Your task to perform on an android device: move a message to another label in the gmail app Image 0: 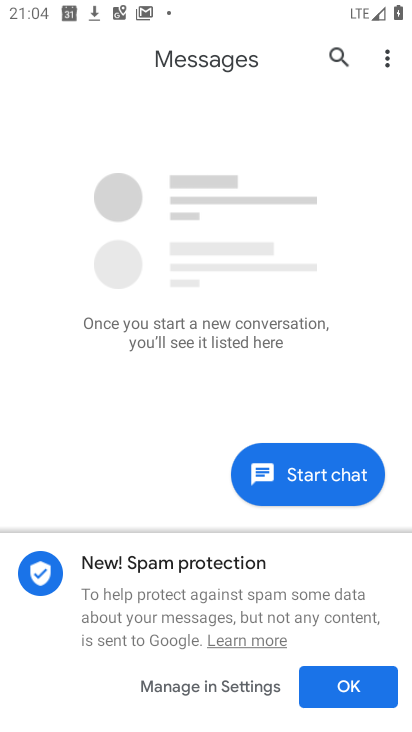
Step 0: press home button
Your task to perform on an android device: move a message to another label in the gmail app Image 1: 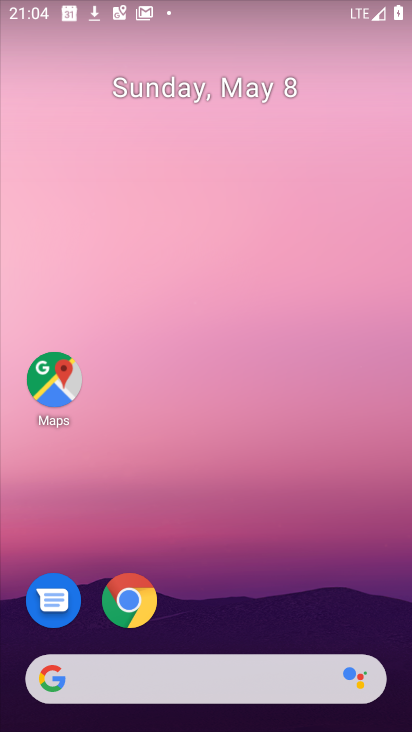
Step 1: drag from (276, 706) to (326, 285)
Your task to perform on an android device: move a message to another label in the gmail app Image 2: 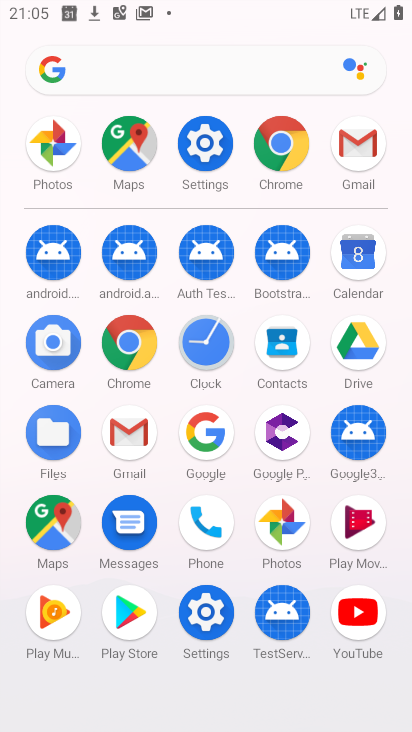
Step 2: click (152, 433)
Your task to perform on an android device: move a message to another label in the gmail app Image 3: 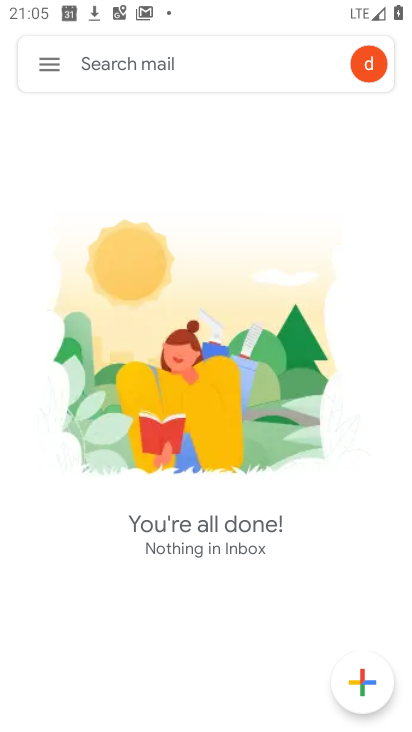
Step 3: click (52, 69)
Your task to perform on an android device: move a message to another label in the gmail app Image 4: 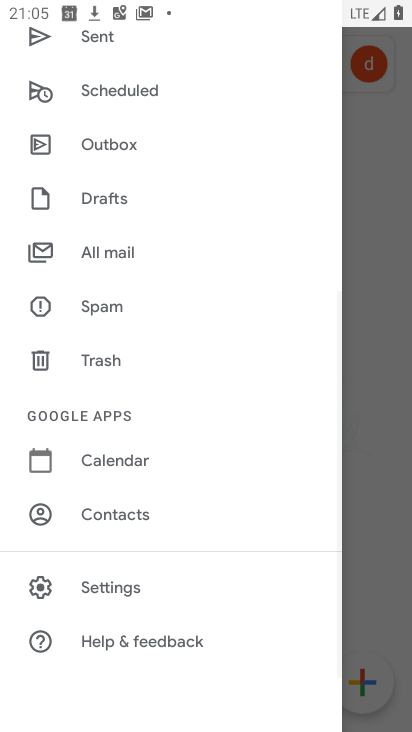
Step 4: click (131, 575)
Your task to perform on an android device: move a message to another label in the gmail app Image 5: 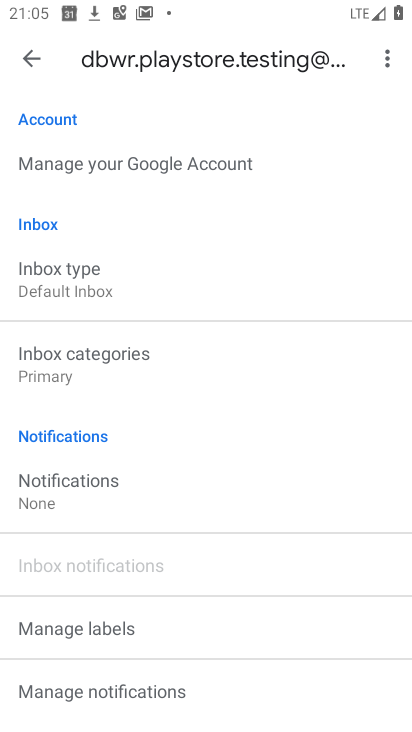
Step 5: click (114, 622)
Your task to perform on an android device: move a message to another label in the gmail app Image 6: 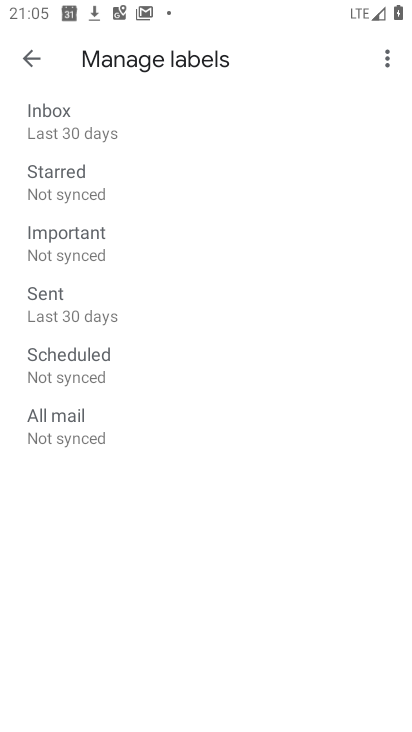
Step 6: click (123, 237)
Your task to perform on an android device: move a message to another label in the gmail app Image 7: 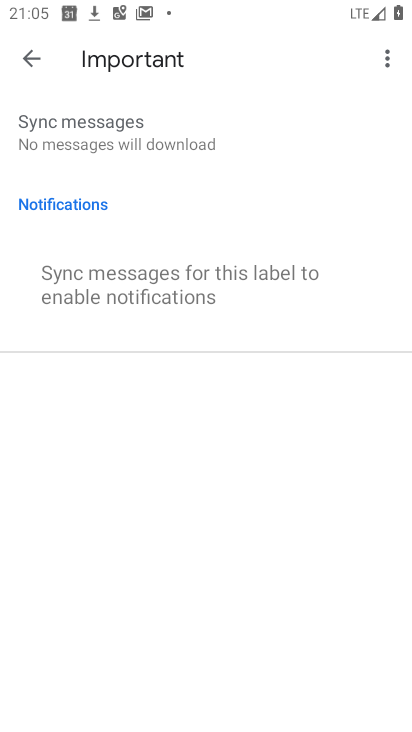
Step 7: task complete